Your task to perform on an android device: open app "LiveIn - Share Your Moment" Image 0: 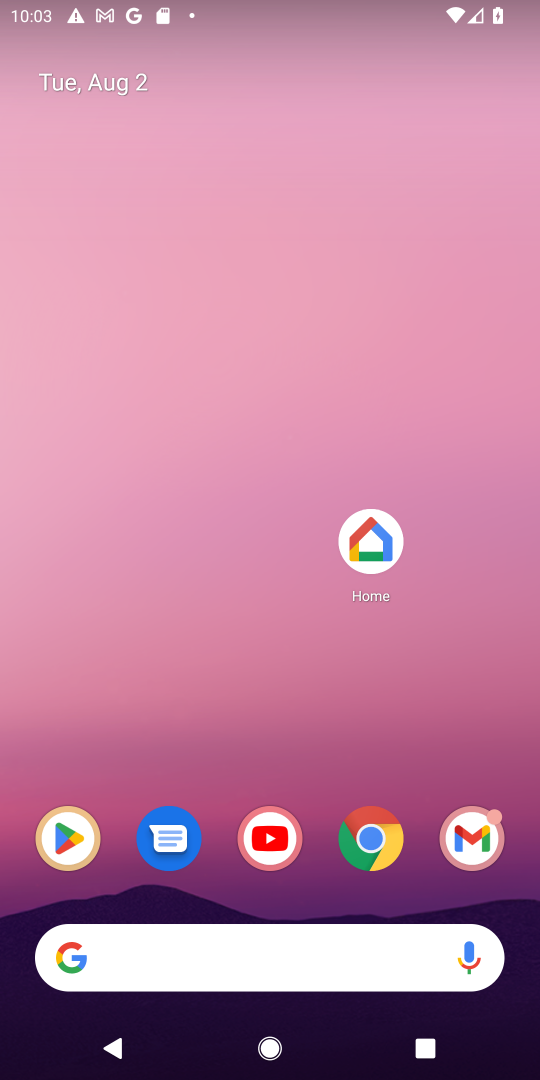
Step 0: press home button
Your task to perform on an android device: open app "LiveIn - Share Your Moment" Image 1: 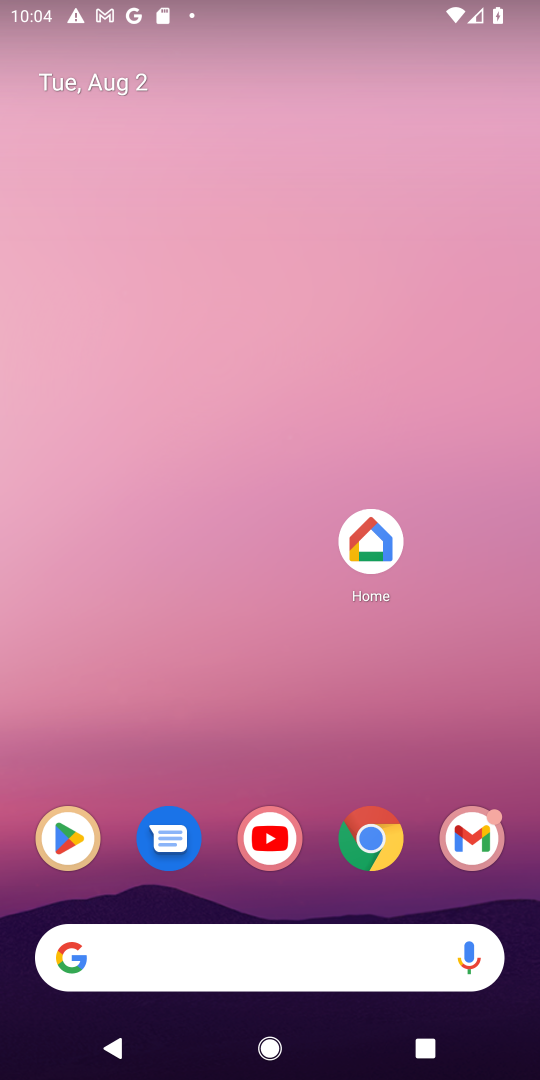
Step 1: drag from (232, 723) to (255, 157)
Your task to perform on an android device: open app "LiveIn - Share Your Moment" Image 2: 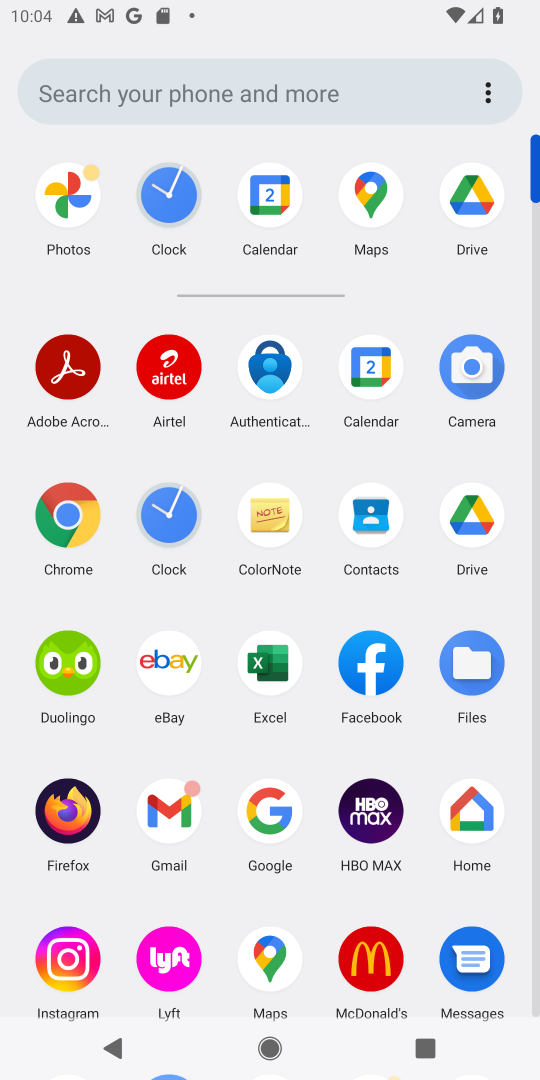
Step 2: drag from (306, 872) to (319, 481)
Your task to perform on an android device: open app "LiveIn - Share Your Moment" Image 3: 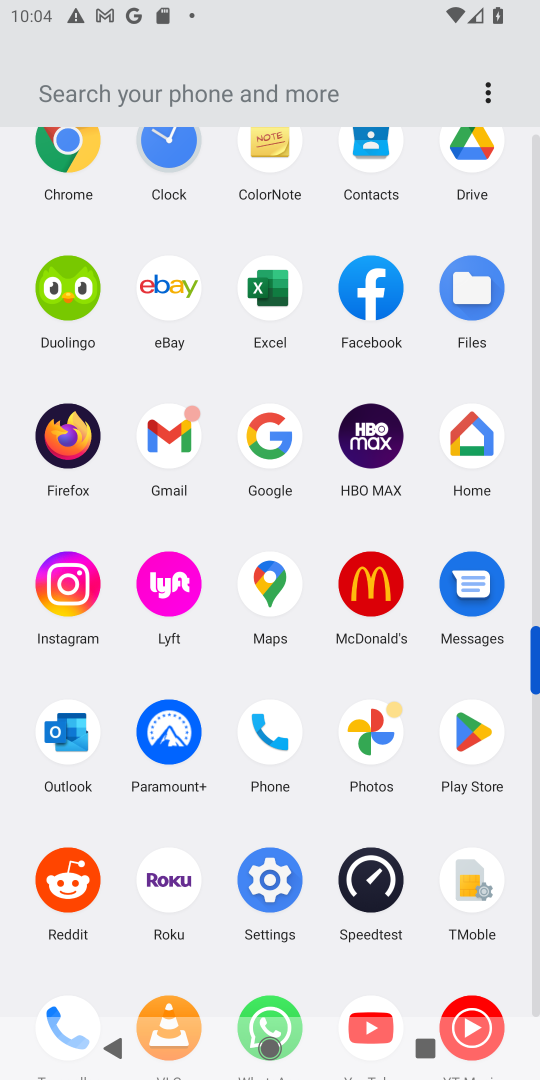
Step 3: click (474, 735)
Your task to perform on an android device: open app "LiveIn - Share Your Moment" Image 4: 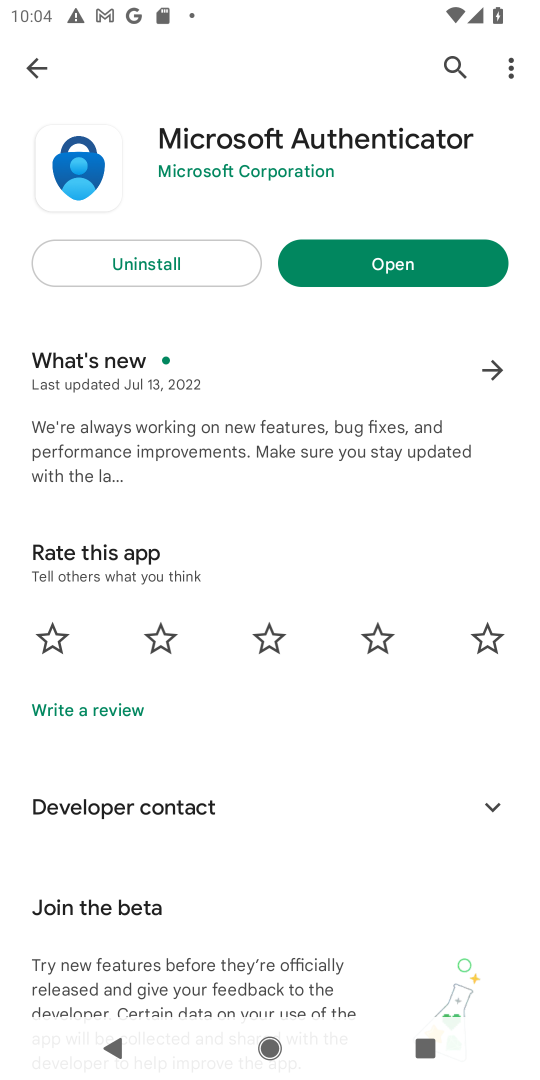
Step 4: click (452, 67)
Your task to perform on an android device: open app "LiveIn - Share Your Moment" Image 5: 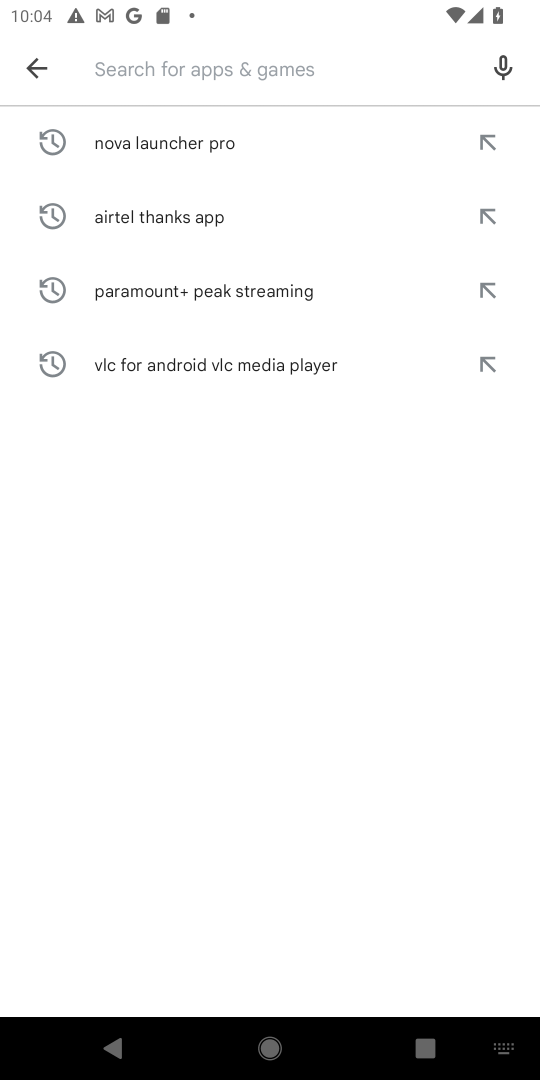
Step 5: type "livein share yor moment"
Your task to perform on an android device: open app "LiveIn - Share Your Moment" Image 6: 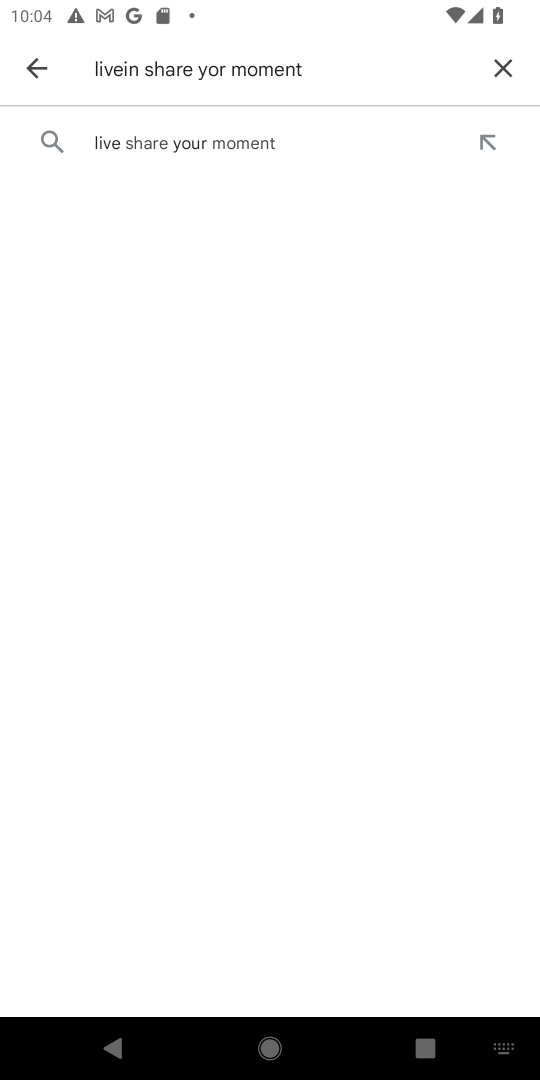
Step 6: click (283, 130)
Your task to perform on an android device: open app "LiveIn - Share Your Moment" Image 7: 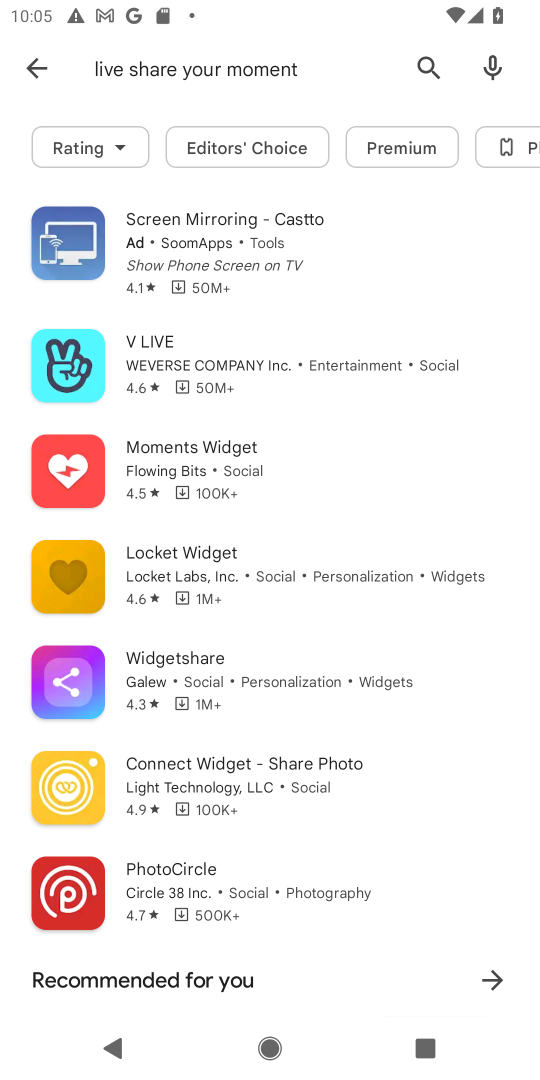
Step 7: task complete